Your task to perform on an android device: uninstall "Google Home" Image 0: 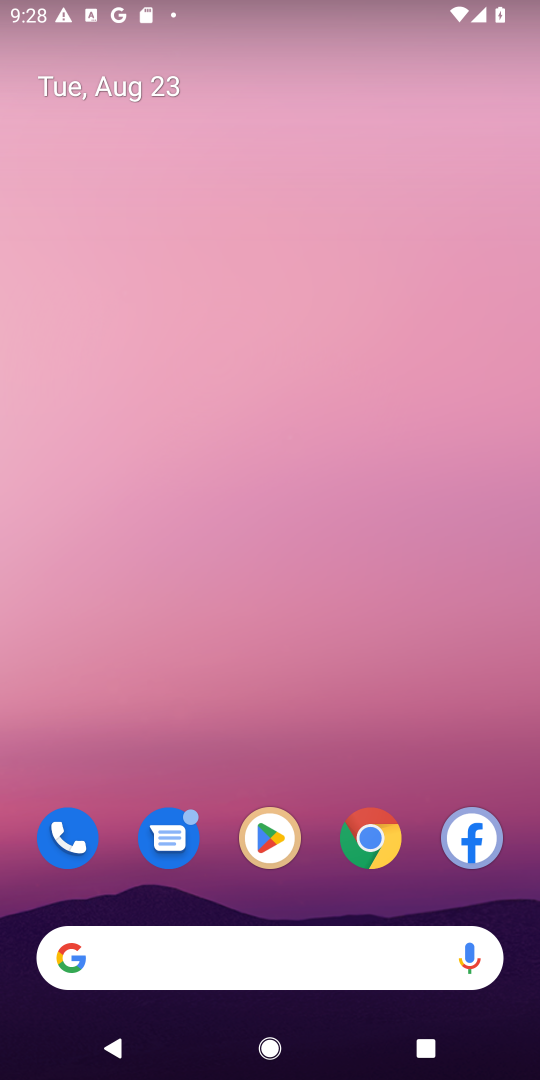
Step 0: click (278, 822)
Your task to perform on an android device: uninstall "Google Home" Image 1: 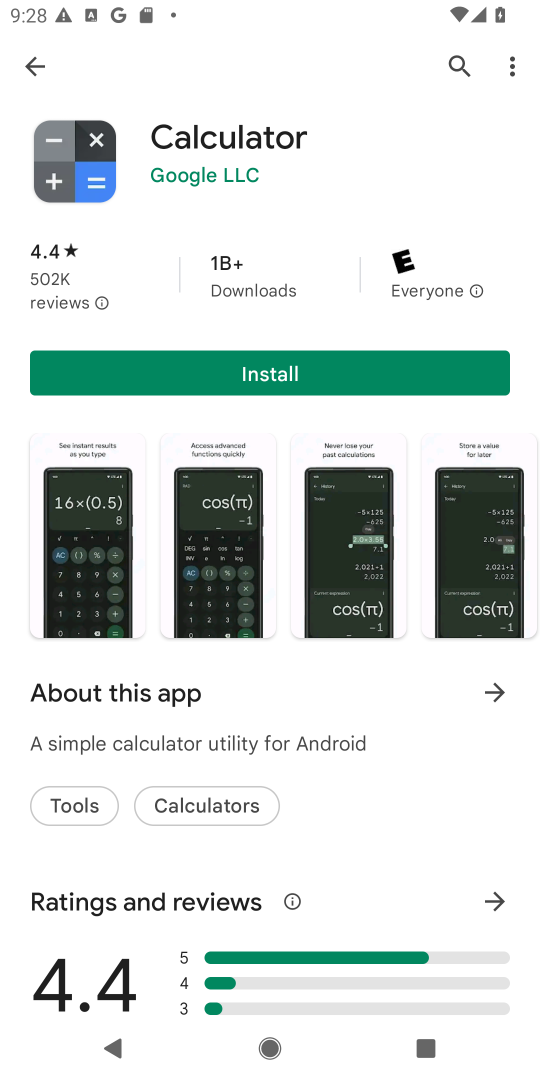
Step 1: click (451, 72)
Your task to perform on an android device: uninstall "Google Home" Image 2: 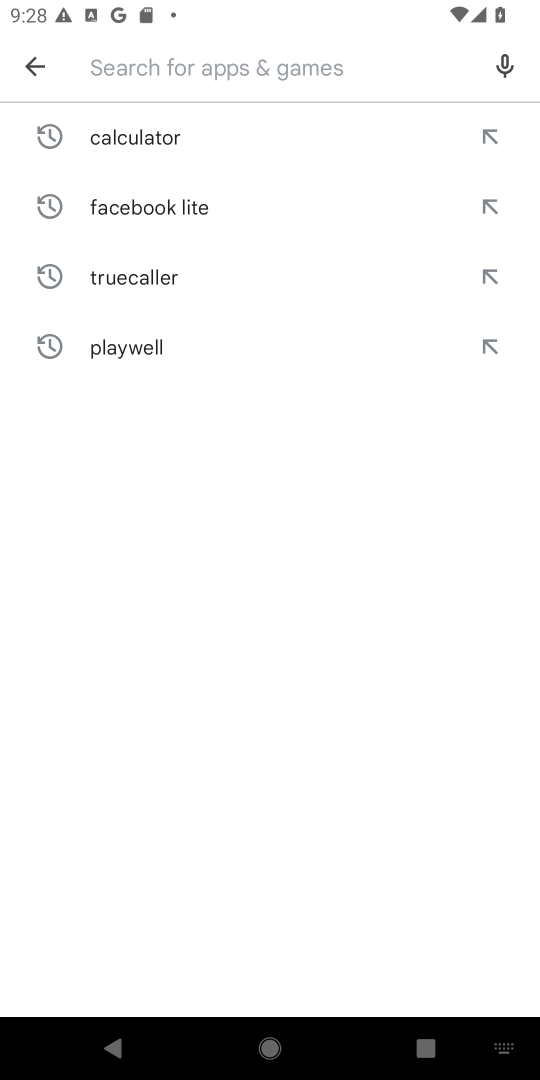
Step 2: type "Google Home"
Your task to perform on an android device: uninstall "Google Home" Image 3: 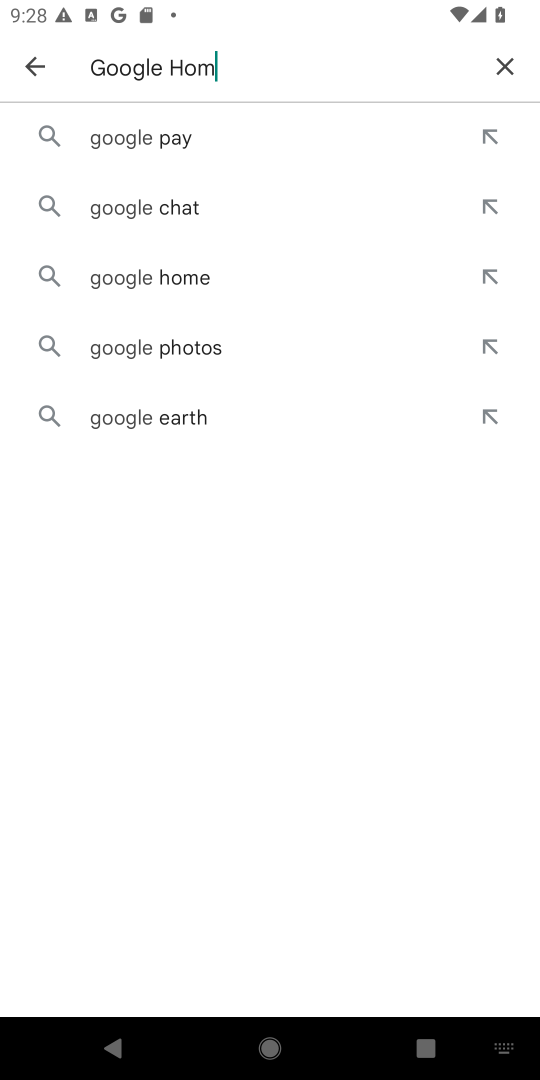
Step 3: type ""
Your task to perform on an android device: uninstall "Google Home" Image 4: 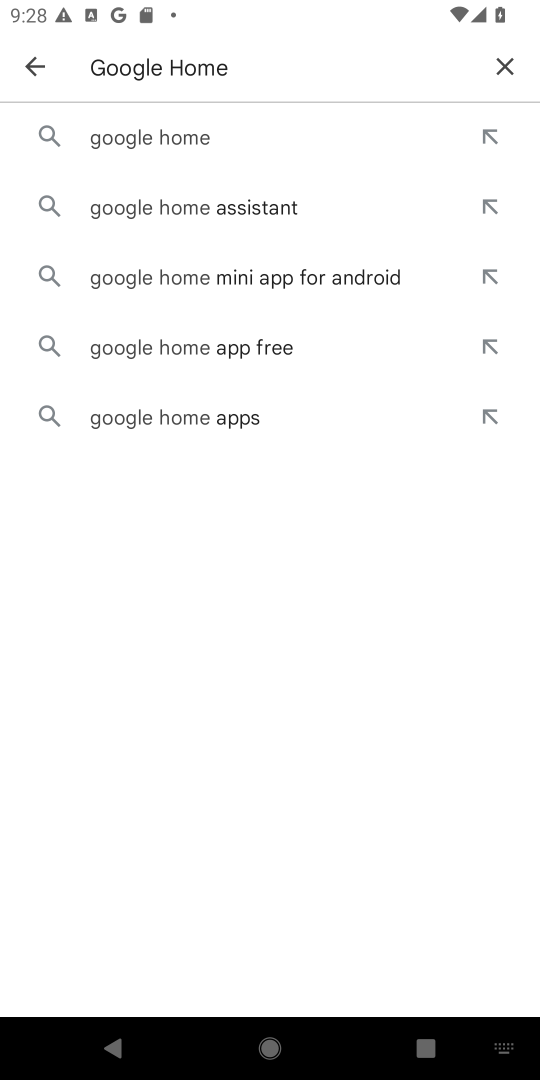
Step 4: click (161, 125)
Your task to perform on an android device: uninstall "Google Home" Image 5: 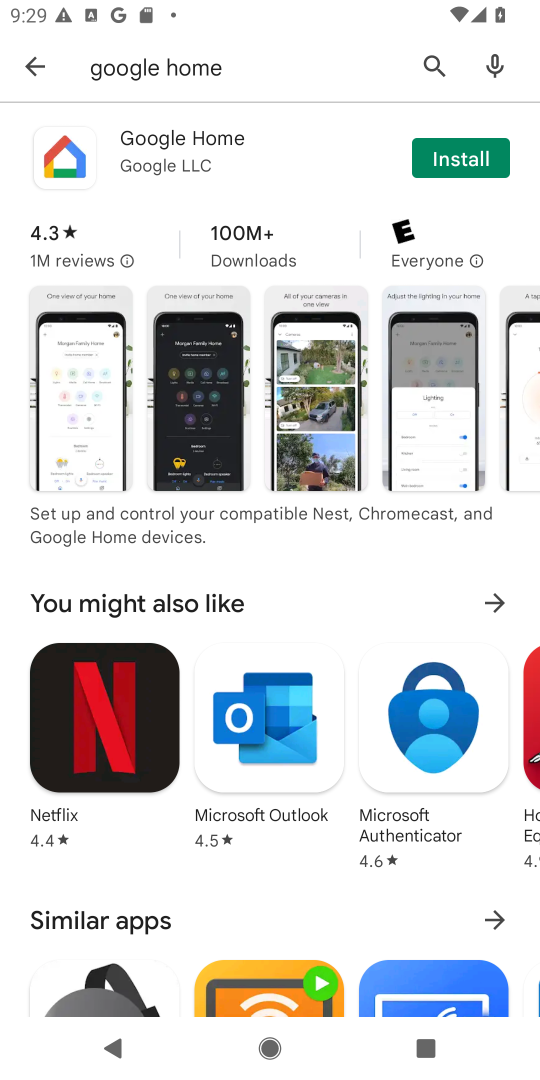
Step 5: task complete